Your task to perform on an android device: Go to wifi settings Image 0: 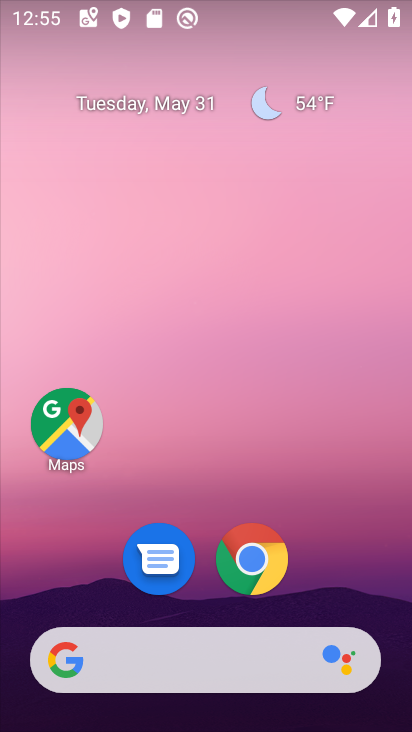
Step 0: drag from (193, 727) to (199, 65)
Your task to perform on an android device: Go to wifi settings Image 1: 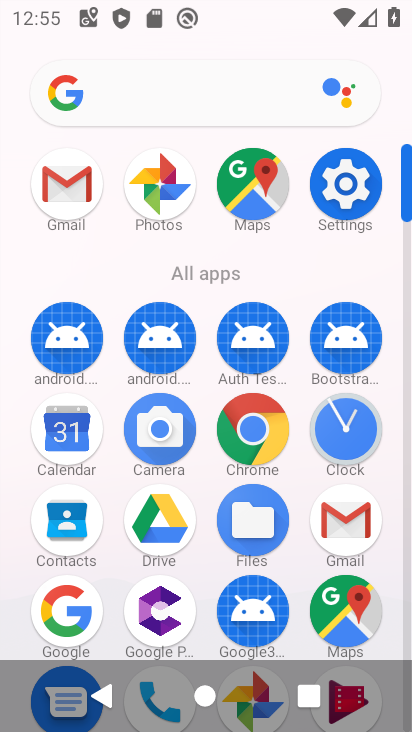
Step 1: click (339, 182)
Your task to perform on an android device: Go to wifi settings Image 2: 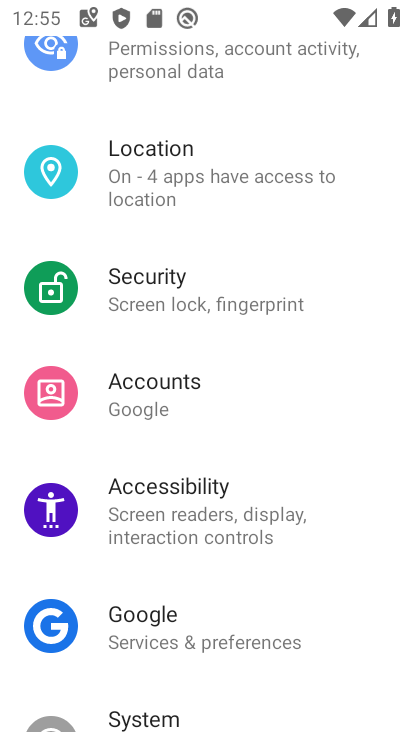
Step 2: drag from (259, 158) to (253, 638)
Your task to perform on an android device: Go to wifi settings Image 3: 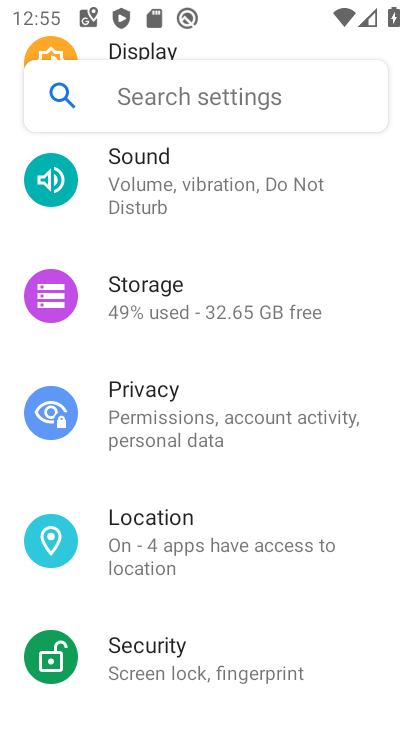
Step 3: drag from (170, 228) to (173, 663)
Your task to perform on an android device: Go to wifi settings Image 4: 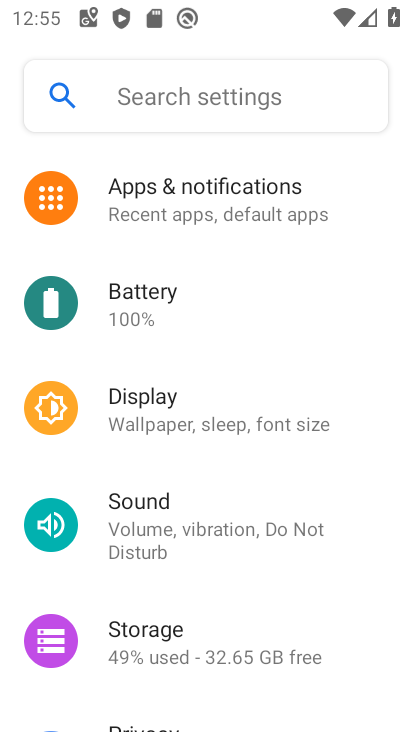
Step 4: drag from (261, 250) to (226, 700)
Your task to perform on an android device: Go to wifi settings Image 5: 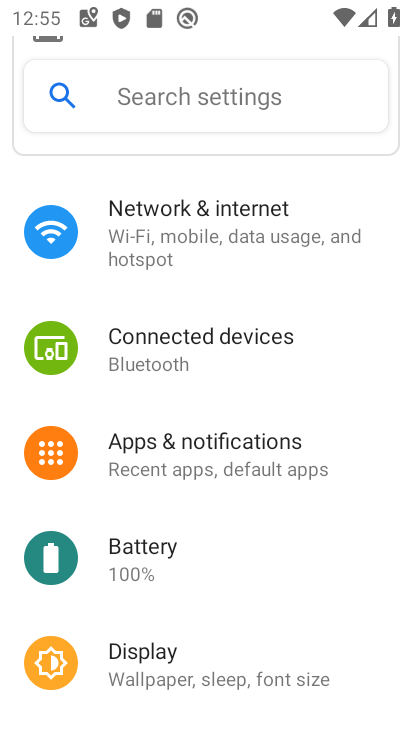
Step 5: click (225, 245)
Your task to perform on an android device: Go to wifi settings Image 6: 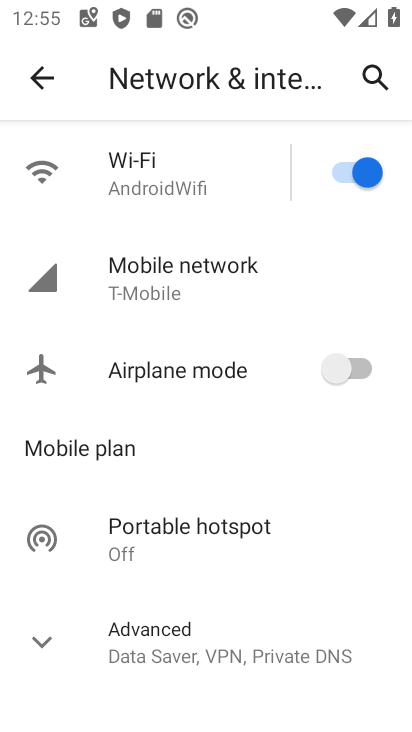
Step 6: click (201, 178)
Your task to perform on an android device: Go to wifi settings Image 7: 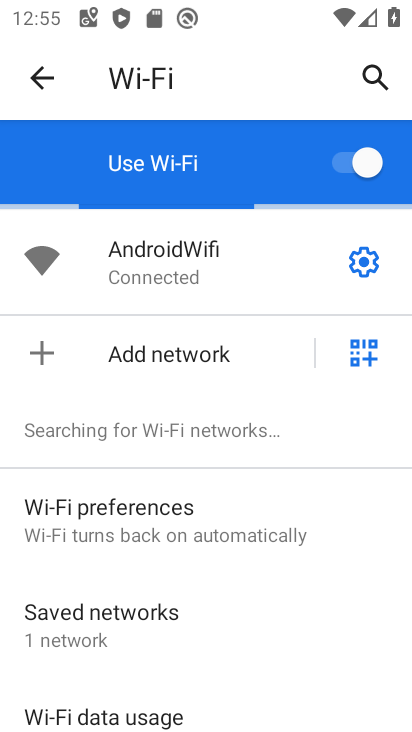
Step 7: task complete